Your task to perform on an android device: Open ESPN.com Image 0: 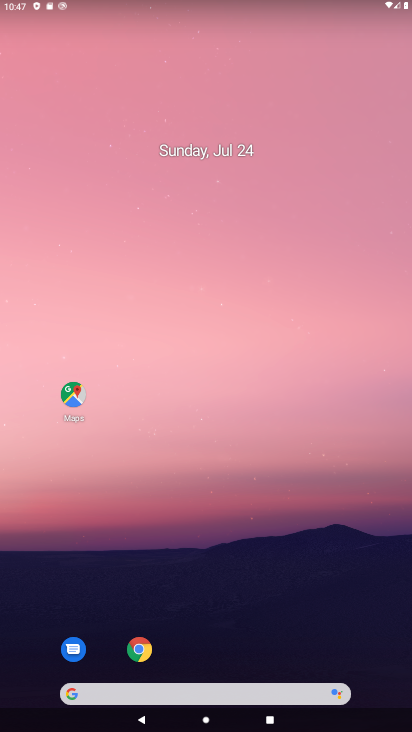
Step 0: click (151, 650)
Your task to perform on an android device: Open ESPN.com Image 1: 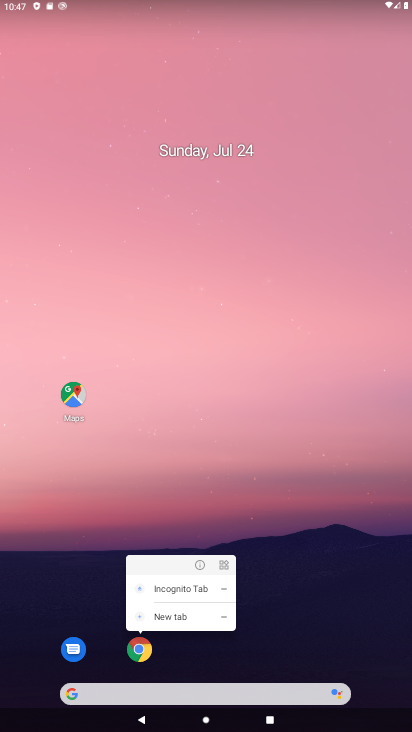
Step 1: click (148, 669)
Your task to perform on an android device: Open ESPN.com Image 2: 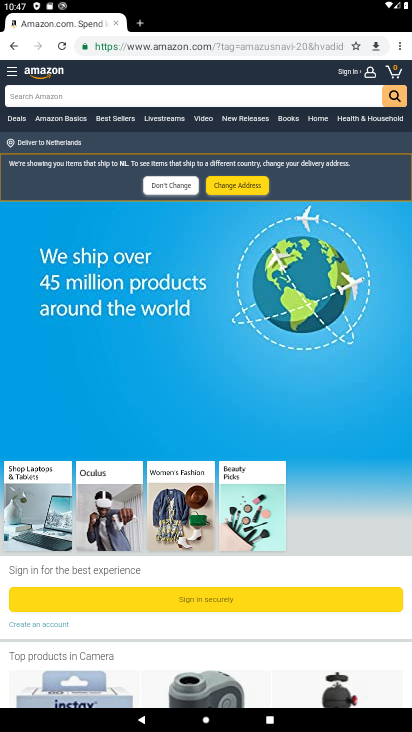
Step 2: click (186, 49)
Your task to perform on an android device: Open ESPN.com Image 3: 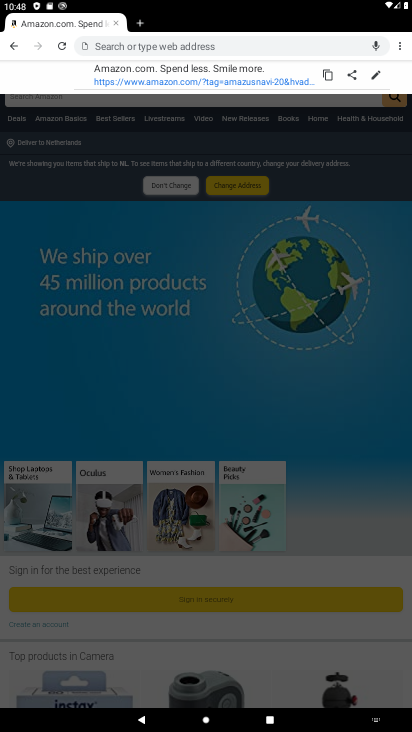
Step 3: type "espn.com"
Your task to perform on an android device: Open ESPN.com Image 4: 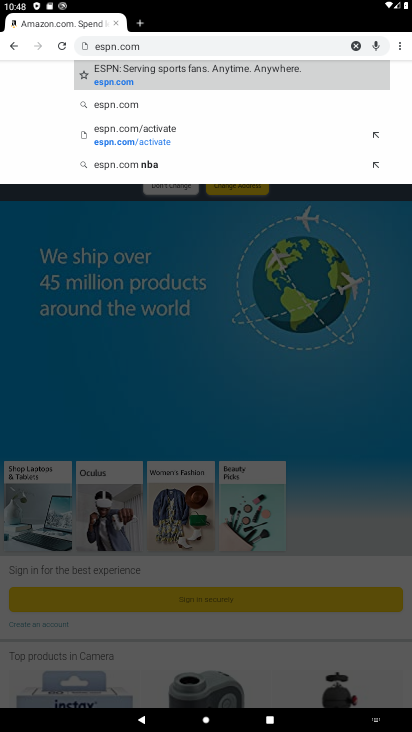
Step 4: click (112, 68)
Your task to perform on an android device: Open ESPN.com Image 5: 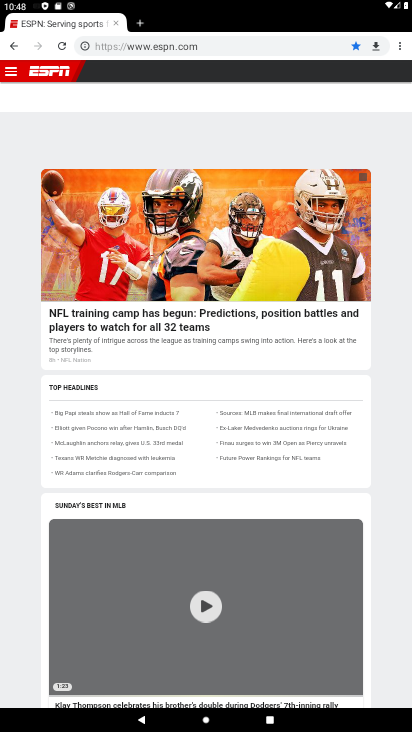
Step 5: task complete